Your task to perform on an android device: toggle data saver in the chrome app Image 0: 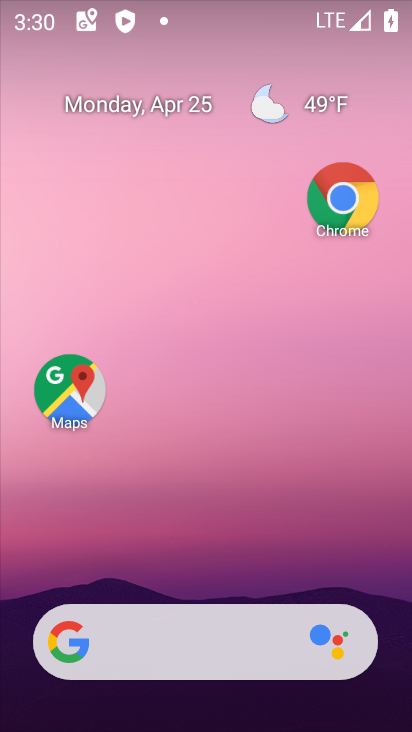
Step 0: click (341, 206)
Your task to perform on an android device: toggle data saver in the chrome app Image 1: 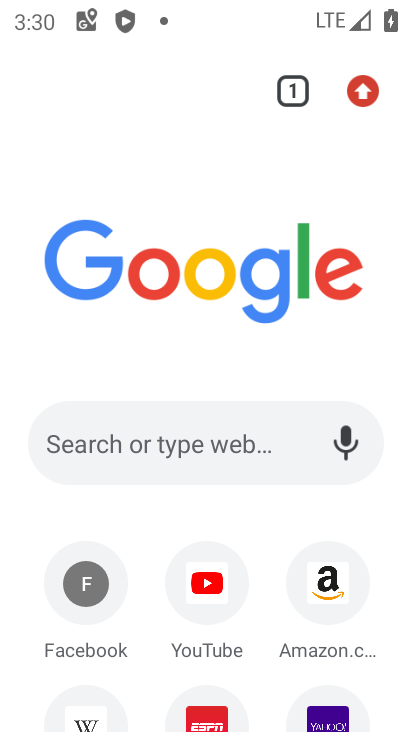
Step 1: click (362, 105)
Your task to perform on an android device: toggle data saver in the chrome app Image 2: 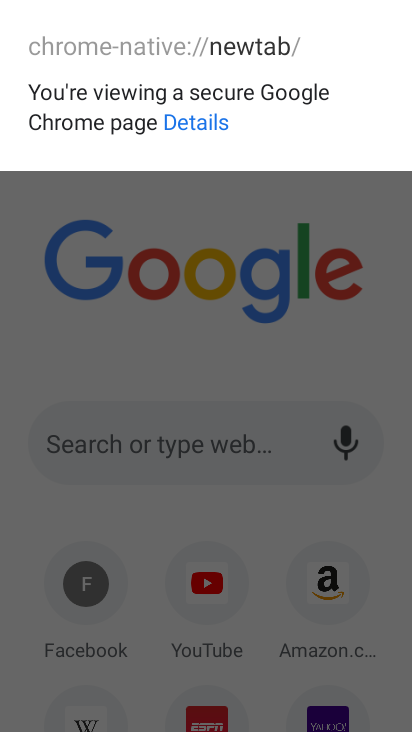
Step 2: press back button
Your task to perform on an android device: toggle data saver in the chrome app Image 3: 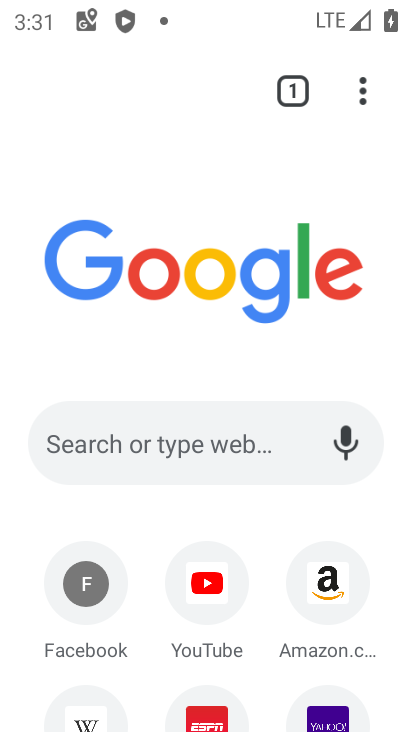
Step 3: drag from (362, 93) to (149, 547)
Your task to perform on an android device: toggle data saver in the chrome app Image 4: 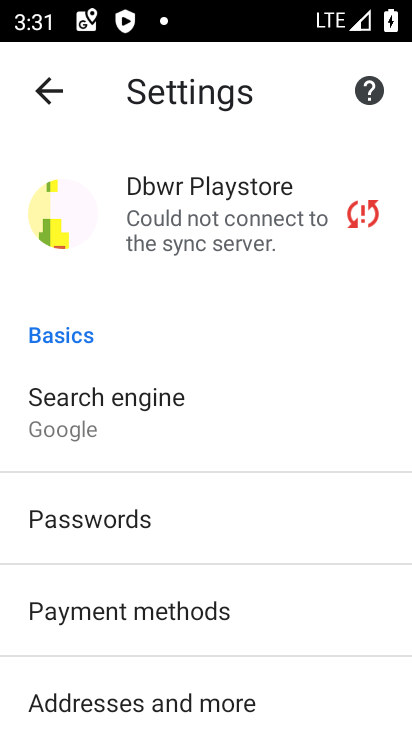
Step 4: drag from (136, 659) to (319, 8)
Your task to perform on an android device: toggle data saver in the chrome app Image 5: 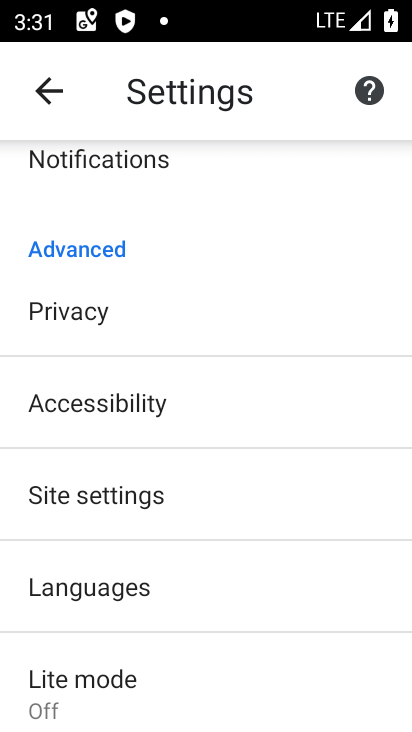
Step 5: click (73, 688)
Your task to perform on an android device: toggle data saver in the chrome app Image 6: 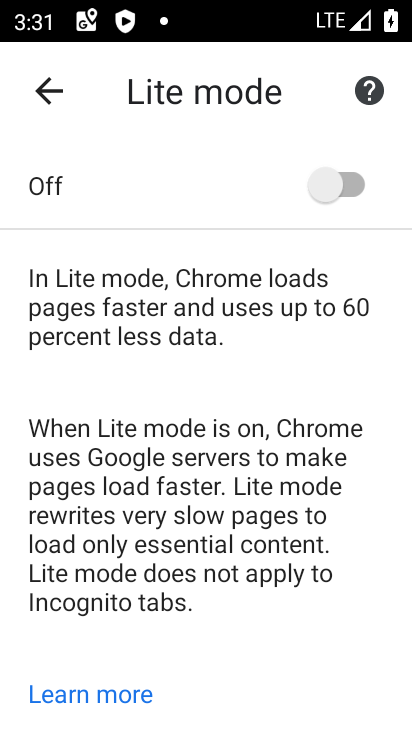
Step 6: click (351, 185)
Your task to perform on an android device: toggle data saver in the chrome app Image 7: 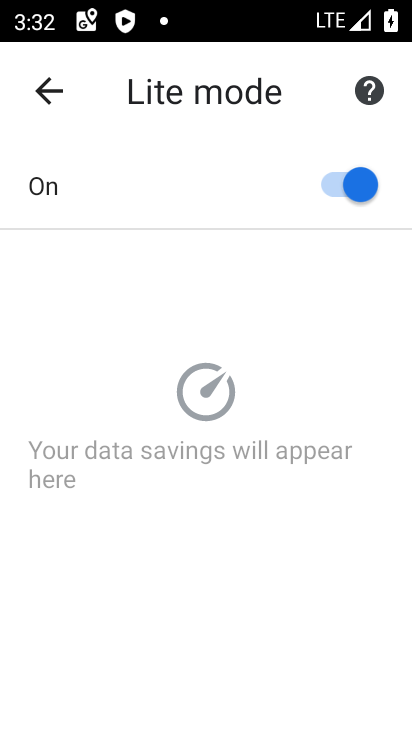
Step 7: task complete